Your task to perform on an android device: check google app version Image 0: 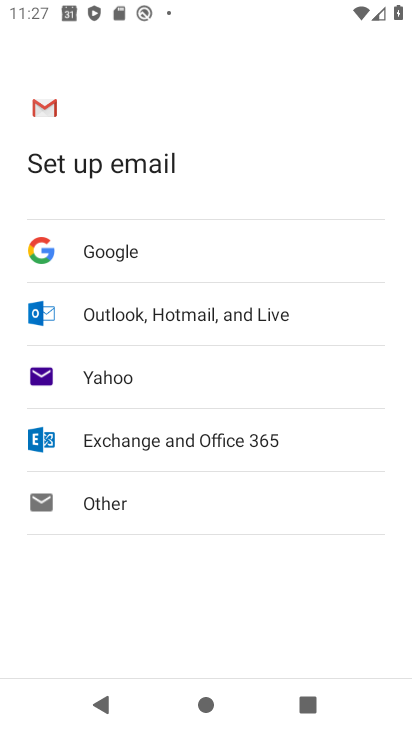
Step 0: press back button
Your task to perform on an android device: check google app version Image 1: 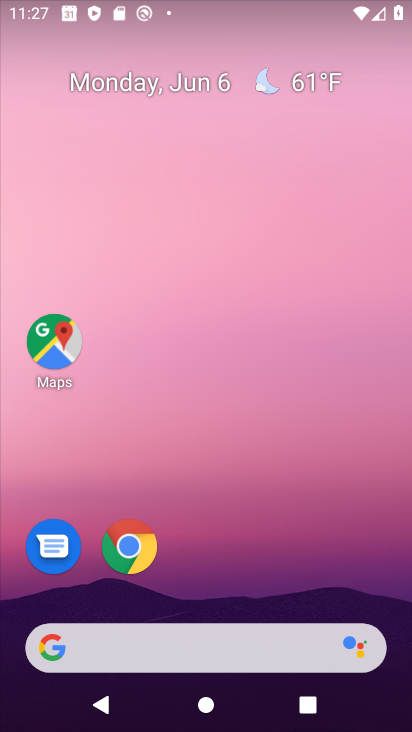
Step 1: drag from (217, 604) to (346, 23)
Your task to perform on an android device: check google app version Image 2: 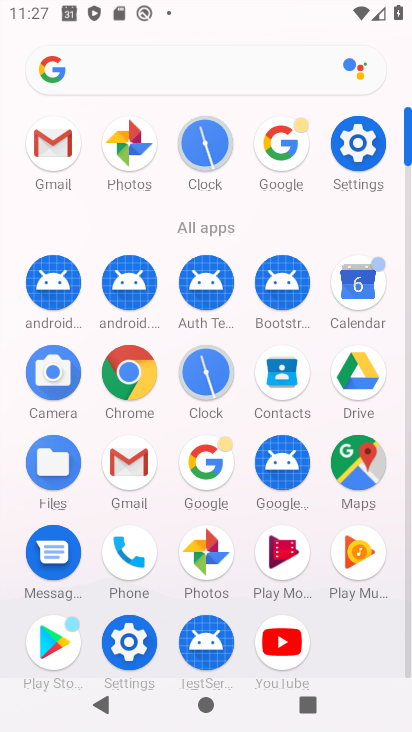
Step 2: click (273, 156)
Your task to perform on an android device: check google app version Image 3: 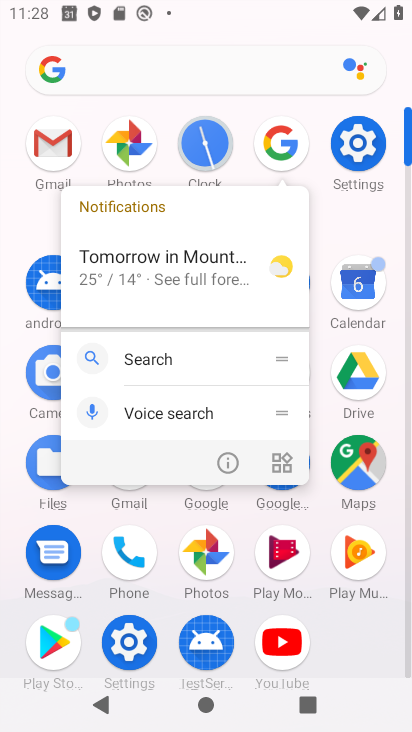
Step 3: click (229, 468)
Your task to perform on an android device: check google app version Image 4: 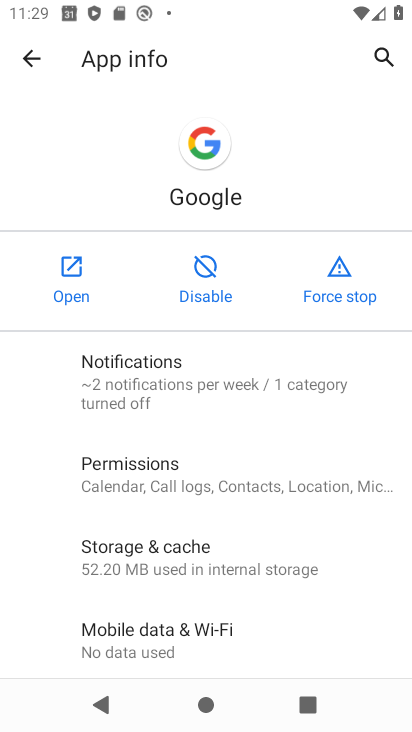
Step 4: drag from (188, 629) to (330, 43)
Your task to perform on an android device: check google app version Image 5: 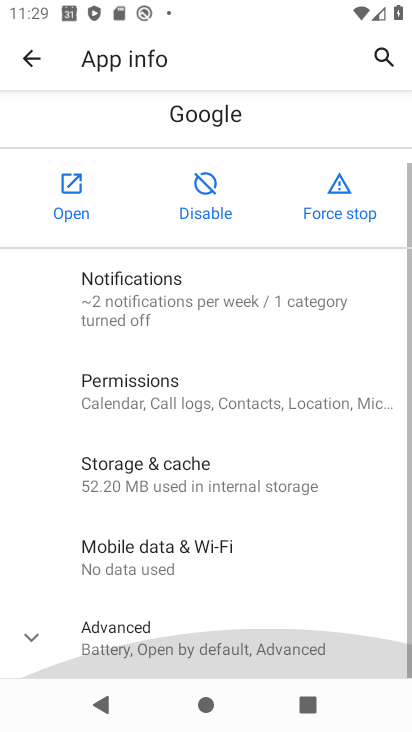
Step 5: drag from (235, 586) to (324, 135)
Your task to perform on an android device: check google app version Image 6: 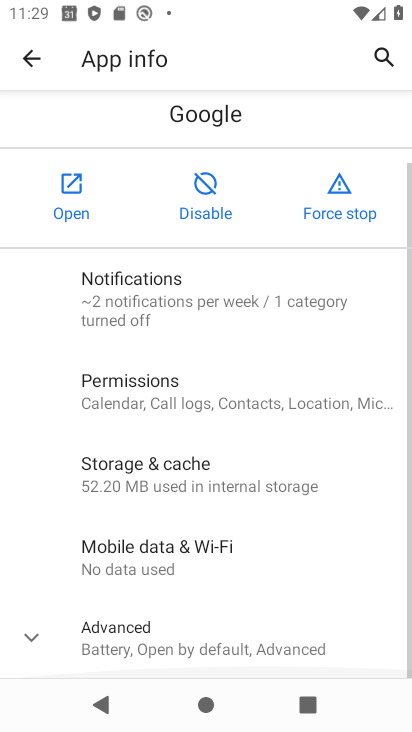
Step 6: click (132, 650)
Your task to perform on an android device: check google app version Image 7: 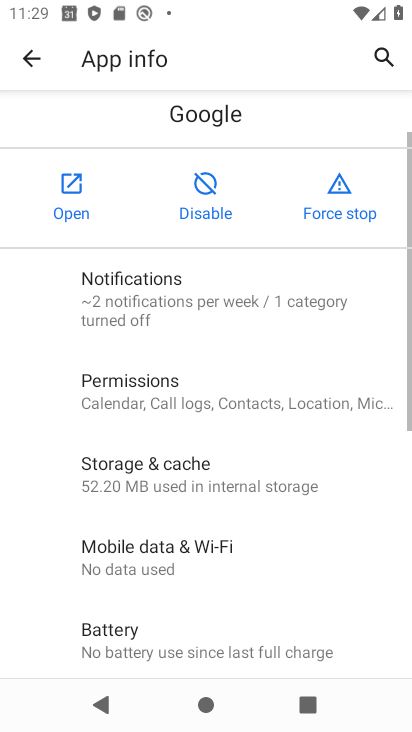
Step 7: task complete